Your task to perform on an android device: open app "Chime – Mobile Banking" Image 0: 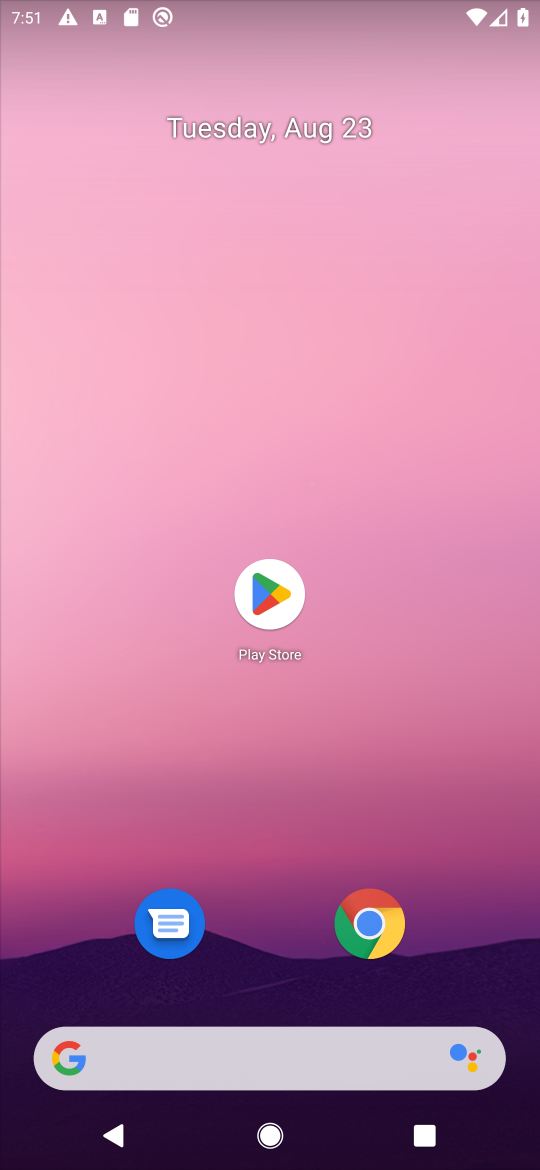
Step 0: click (281, 601)
Your task to perform on an android device: open app "Chime – Mobile Banking" Image 1: 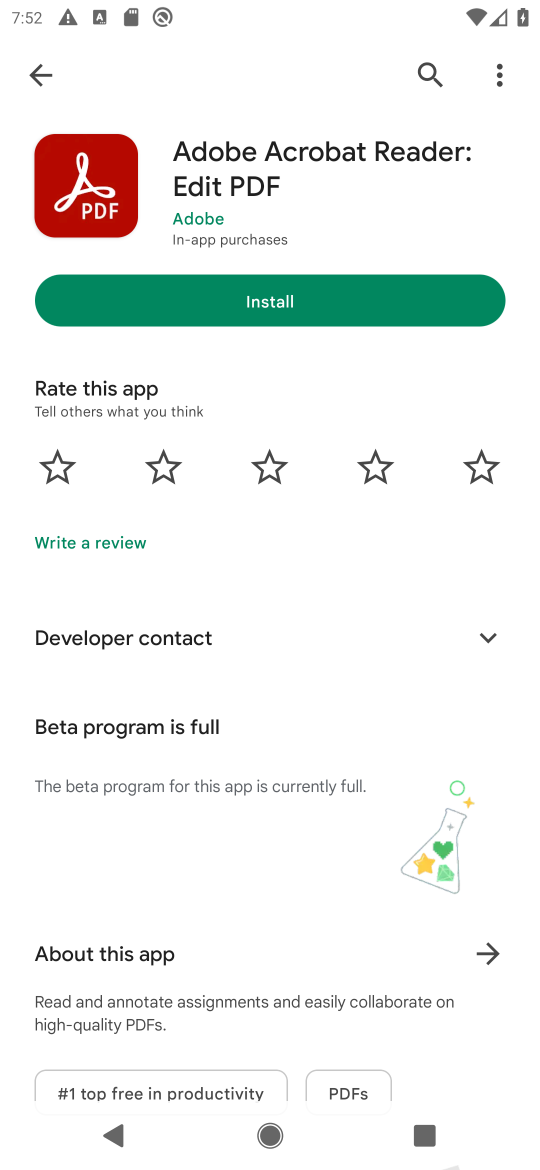
Step 1: click (419, 70)
Your task to perform on an android device: open app "Chime – Mobile Banking" Image 2: 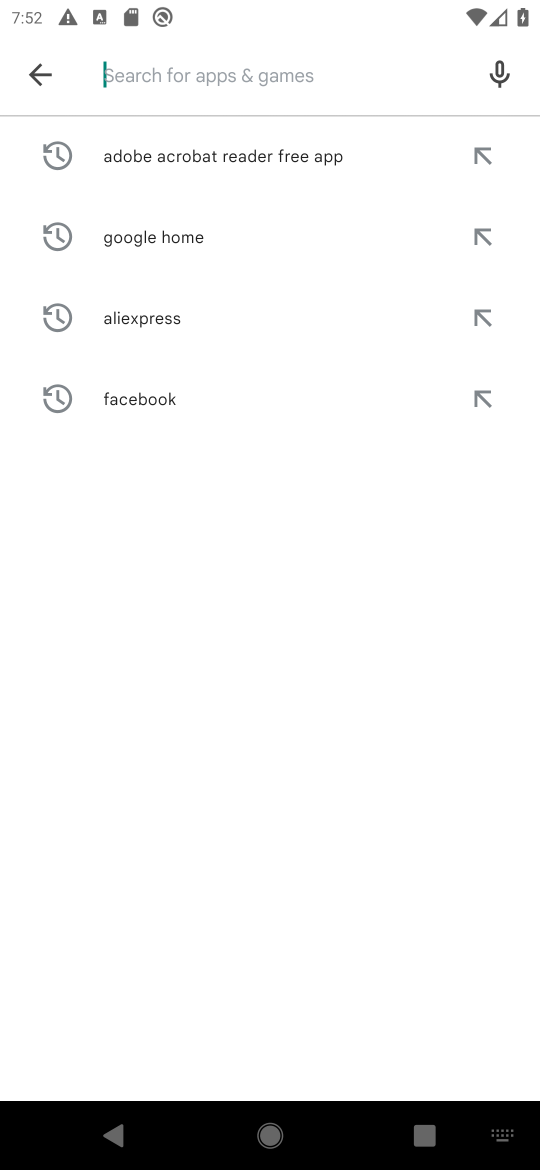
Step 2: type "Chime Mobile Banking"
Your task to perform on an android device: open app "Chime – Mobile Banking" Image 3: 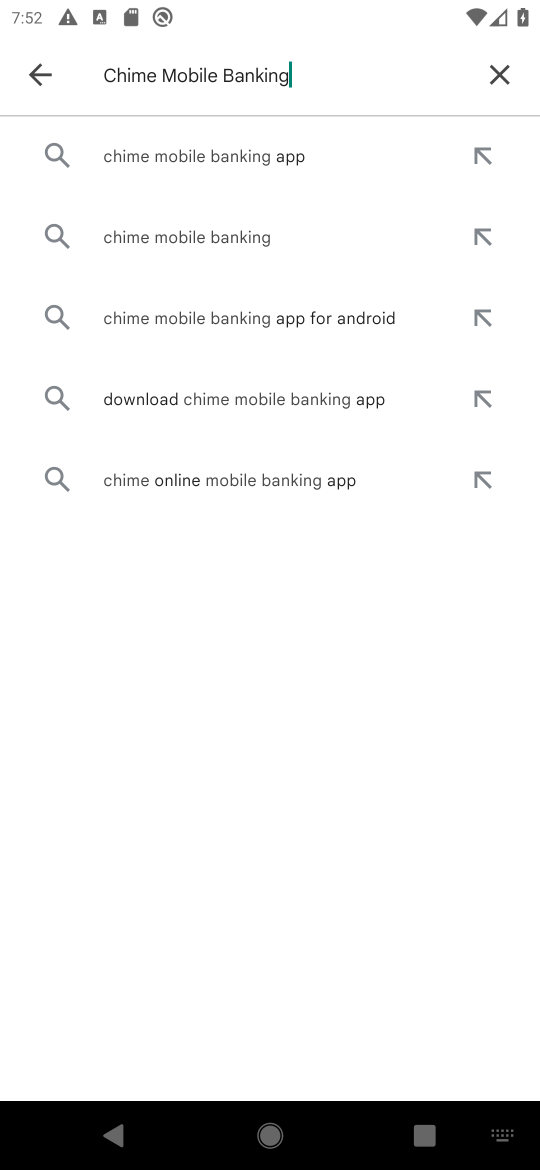
Step 3: click (234, 153)
Your task to perform on an android device: open app "Chime – Mobile Banking" Image 4: 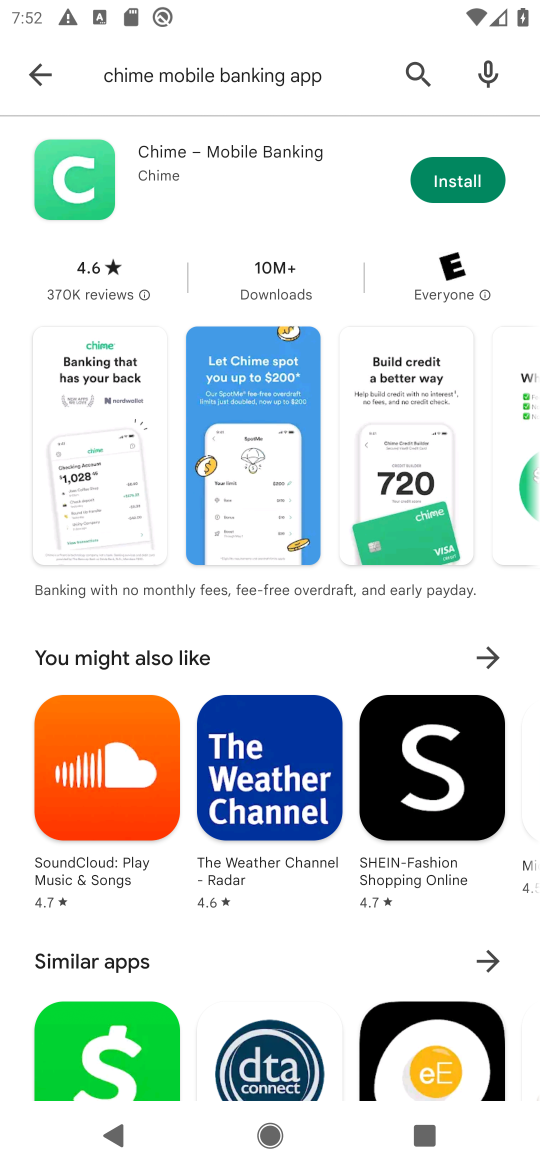
Step 4: task complete